Your task to perform on an android device: Open the stopwatch Image 0: 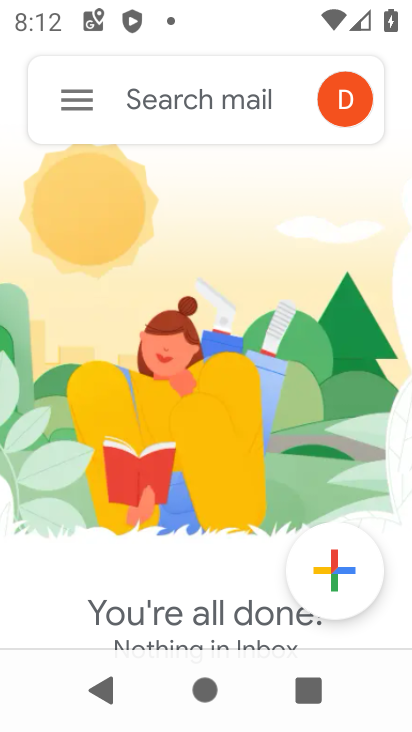
Step 0: press home button
Your task to perform on an android device: Open the stopwatch Image 1: 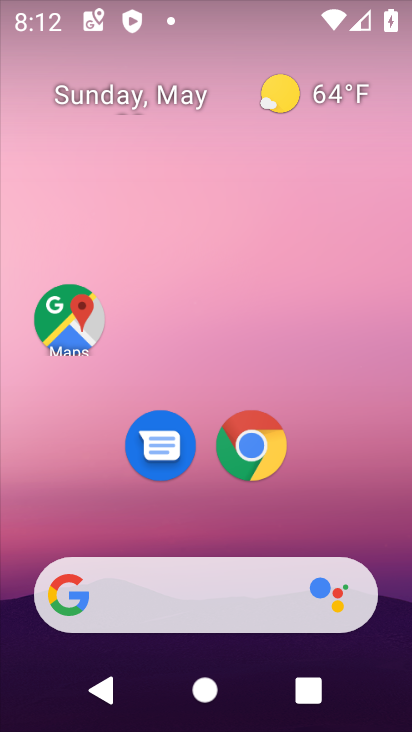
Step 1: drag from (188, 526) to (276, 65)
Your task to perform on an android device: Open the stopwatch Image 2: 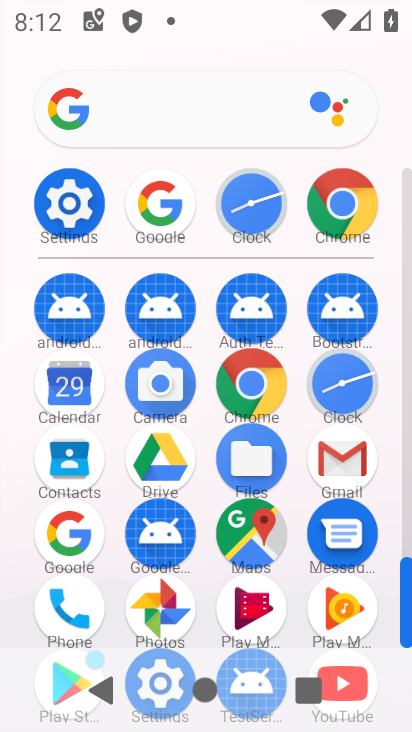
Step 2: click (325, 378)
Your task to perform on an android device: Open the stopwatch Image 3: 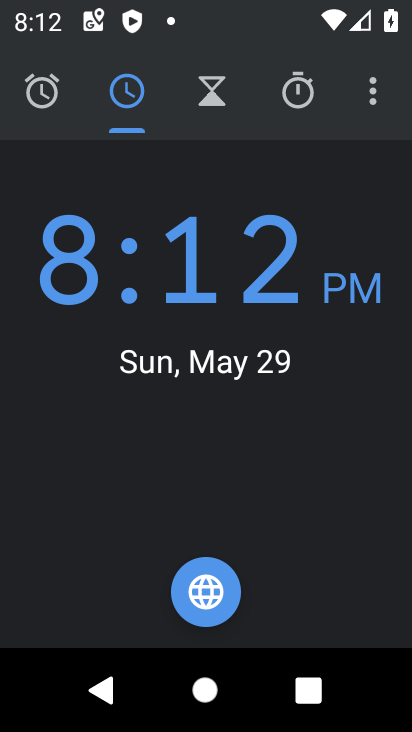
Step 3: click (312, 98)
Your task to perform on an android device: Open the stopwatch Image 4: 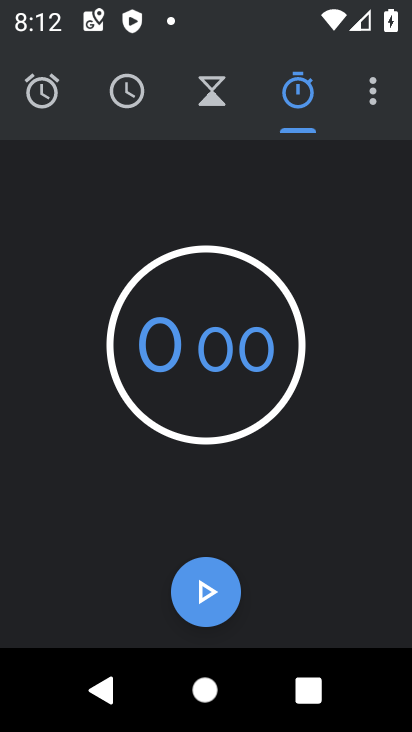
Step 4: click (207, 607)
Your task to perform on an android device: Open the stopwatch Image 5: 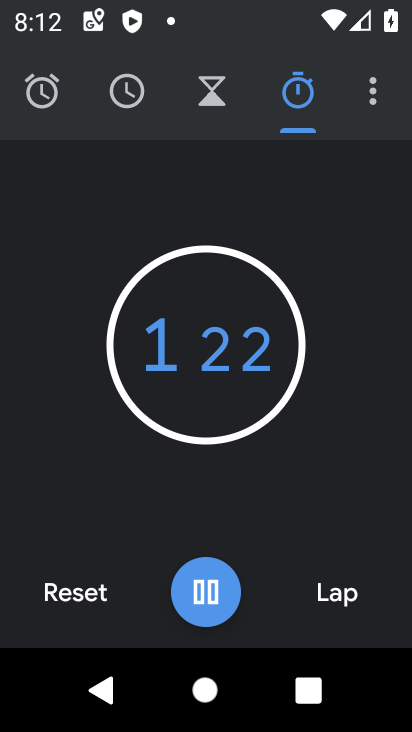
Step 5: task complete